Your task to perform on an android device: turn off priority inbox in the gmail app Image 0: 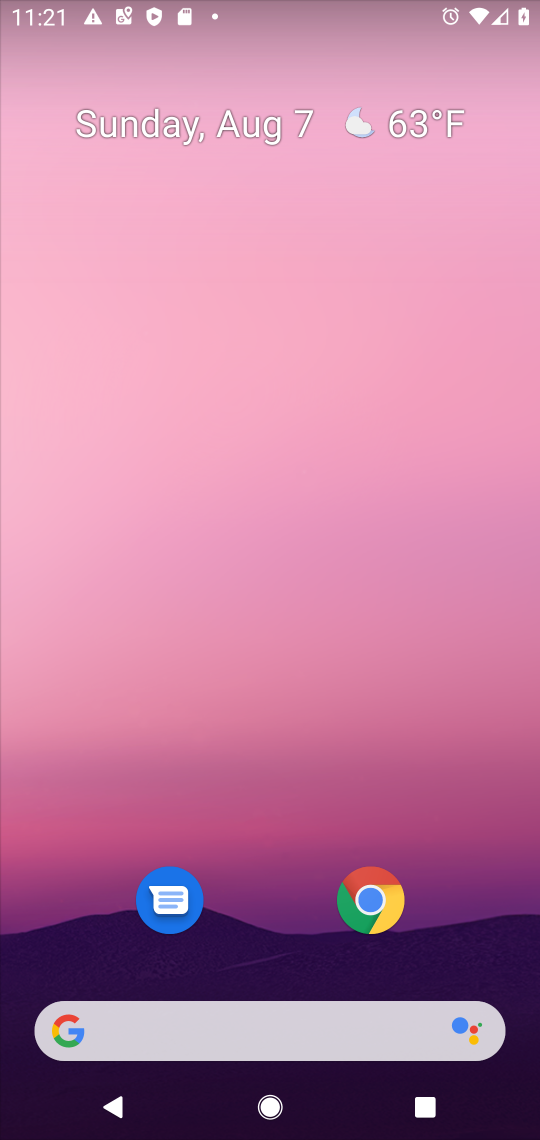
Step 0: drag from (281, 949) to (281, 75)
Your task to perform on an android device: turn off priority inbox in the gmail app Image 1: 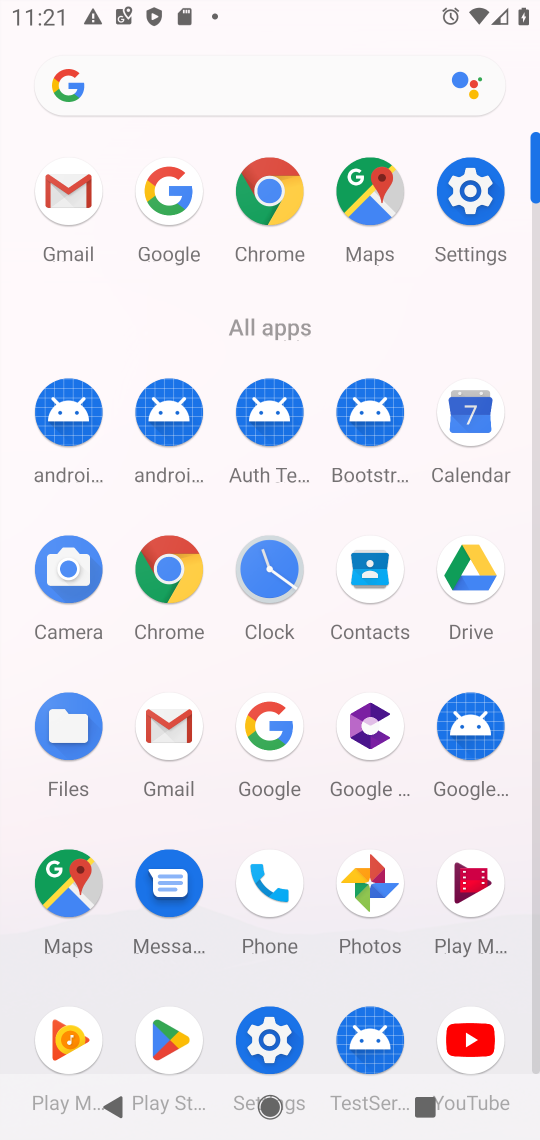
Step 1: click (167, 711)
Your task to perform on an android device: turn off priority inbox in the gmail app Image 2: 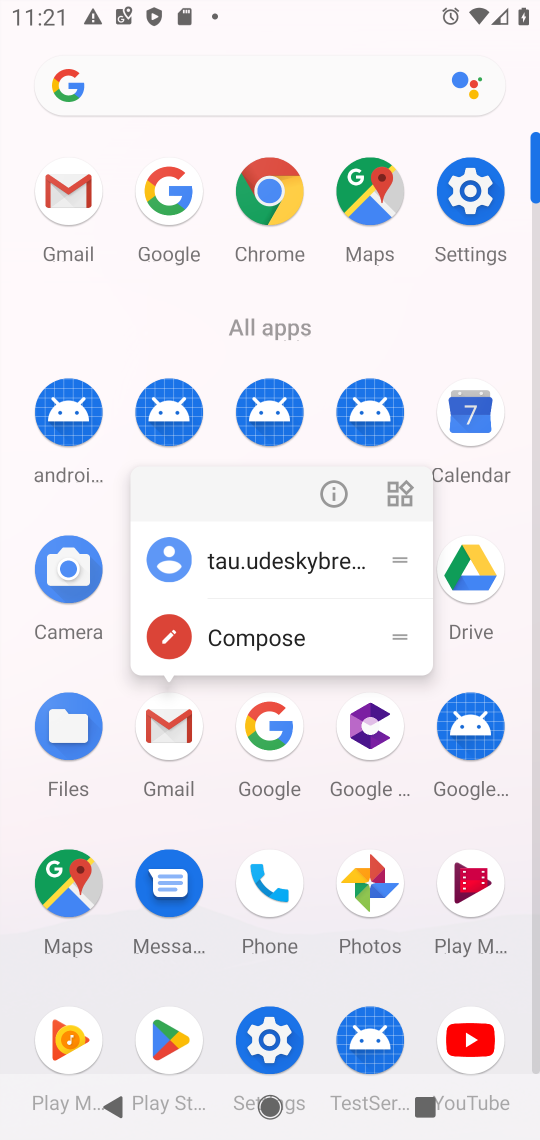
Step 2: click (166, 719)
Your task to perform on an android device: turn off priority inbox in the gmail app Image 3: 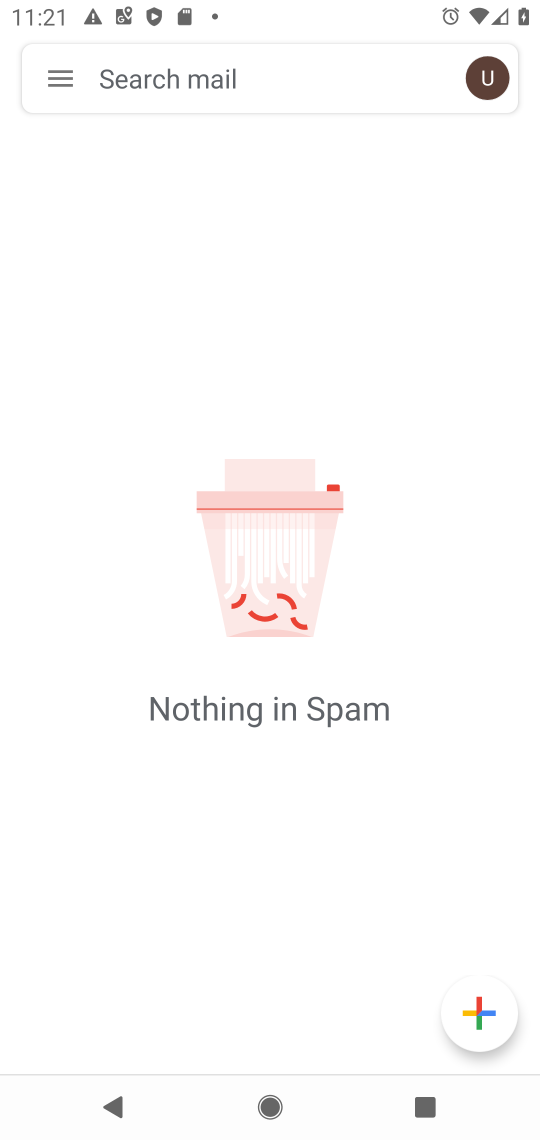
Step 3: click (59, 70)
Your task to perform on an android device: turn off priority inbox in the gmail app Image 4: 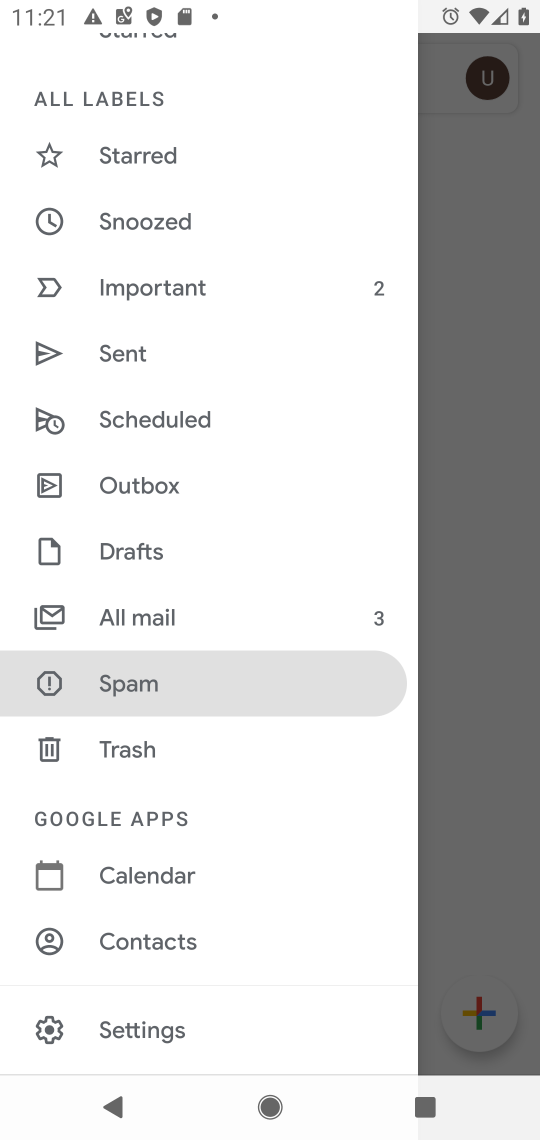
Step 4: click (209, 1027)
Your task to perform on an android device: turn off priority inbox in the gmail app Image 5: 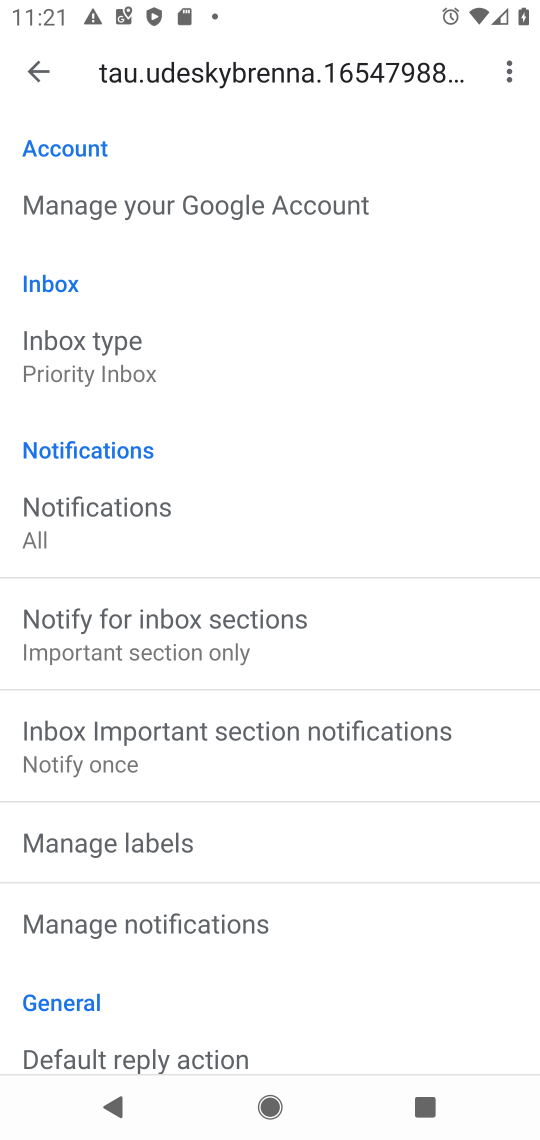
Step 5: click (202, 348)
Your task to perform on an android device: turn off priority inbox in the gmail app Image 6: 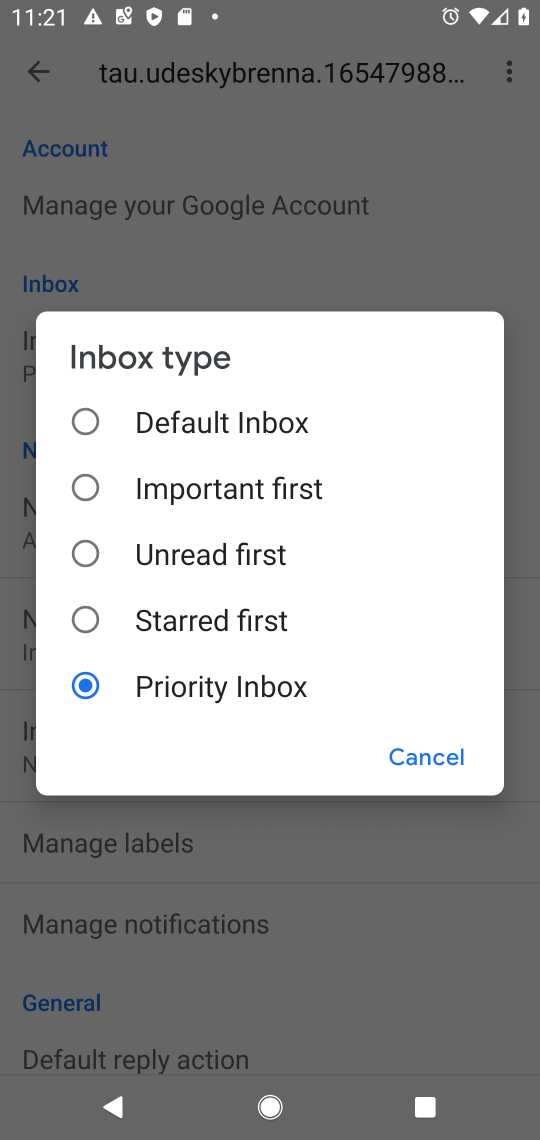
Step 6: click (97, 617)
Your task to perform on an android device: turn off priority inbox in the gmail app Image 7: 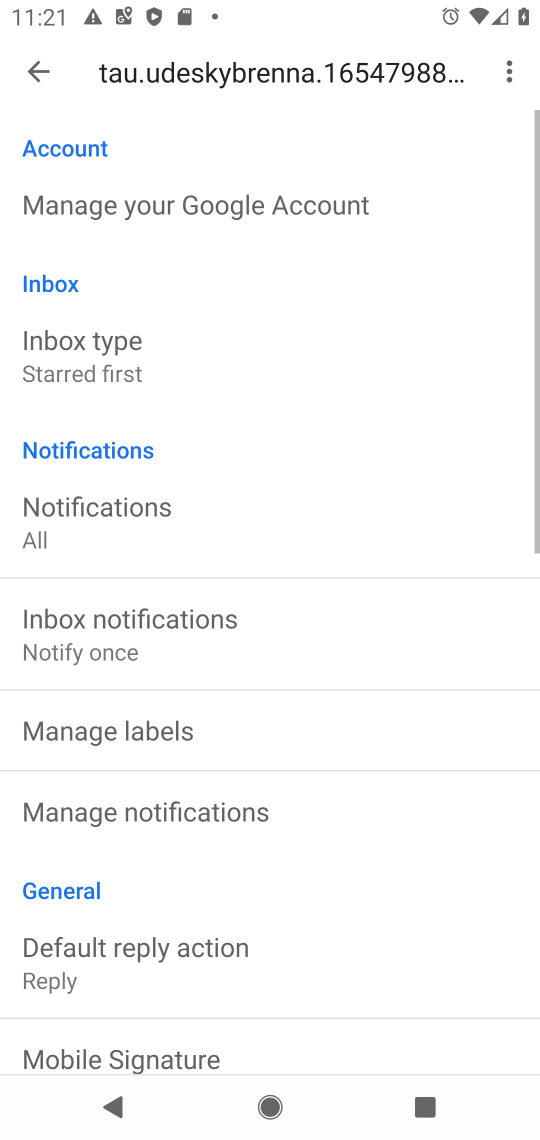
Step 7: task complete